Your task to perform on an android device: Open battery settings Image 0: 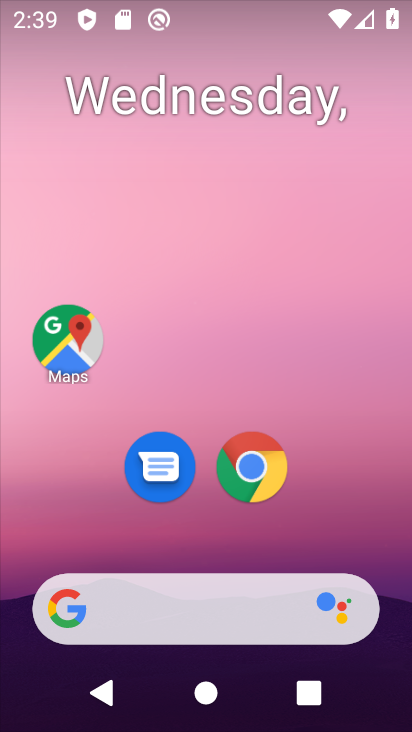
Step 0: drag from (141, 538) to (228, 166)
Your task to perform on an android device: Open battery settings Image 1: 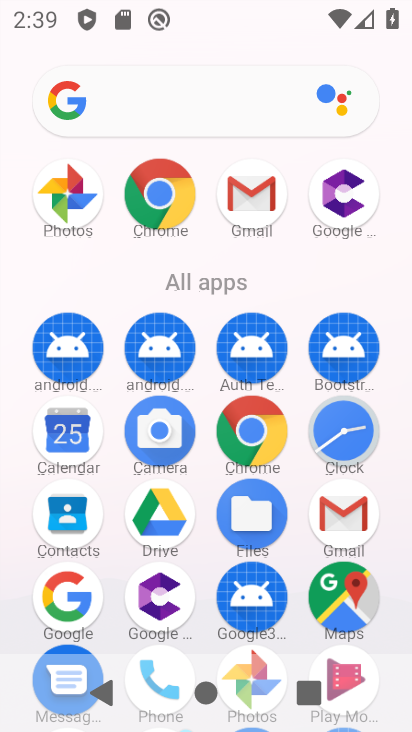
Step 1: drag from (153, 601) to (240, 355)
Your task to perform on an android device: Open battery settings Image 2: 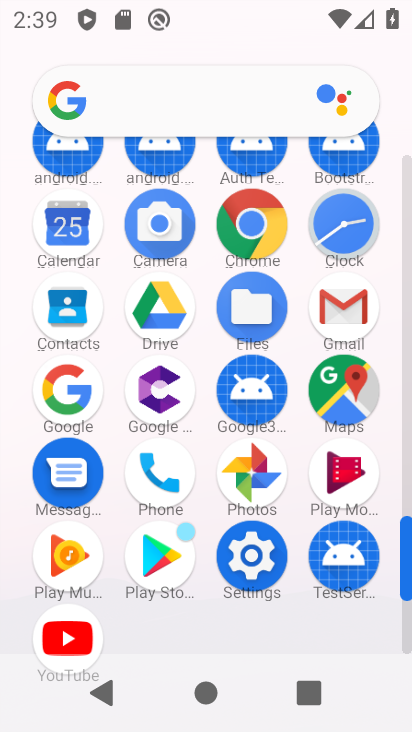
Step 2: click (250, 571)
Your task to perform on an android device: Open battery settings Image 3: 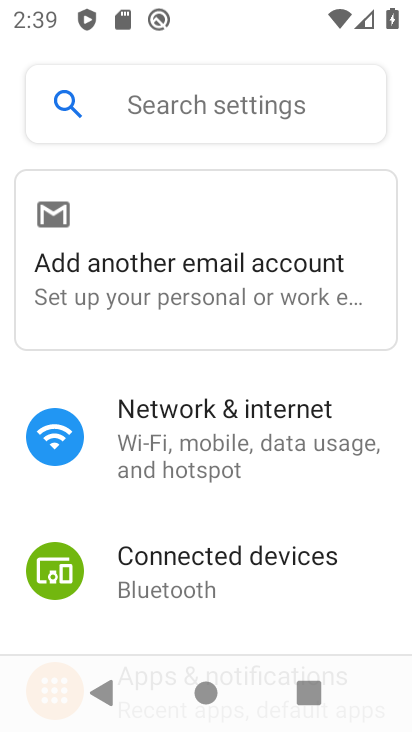
Step 3: drag from (160, 574) to (294, 85)
Your task to perform on an android device: Open battery settings Image 4: 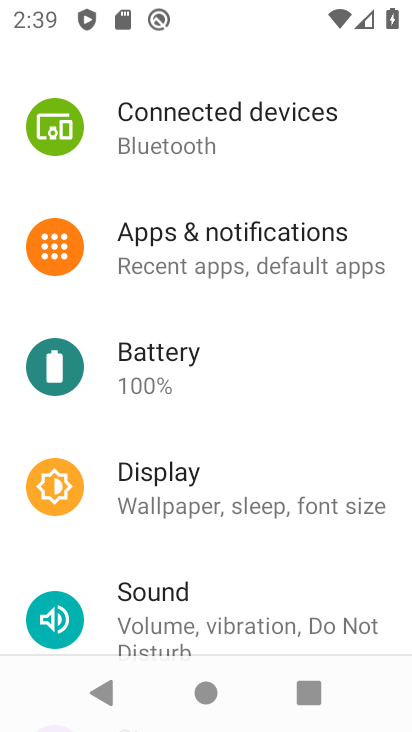
Step 4: click (190, 395)
Your task to perform on an android device: Open battery settings Image 5: 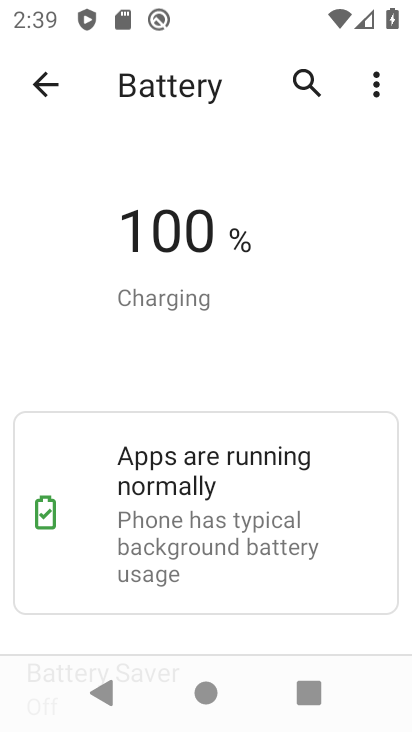
Step 5: task complete